Your task to perform on an android device: turn on airplane mode Image 0: 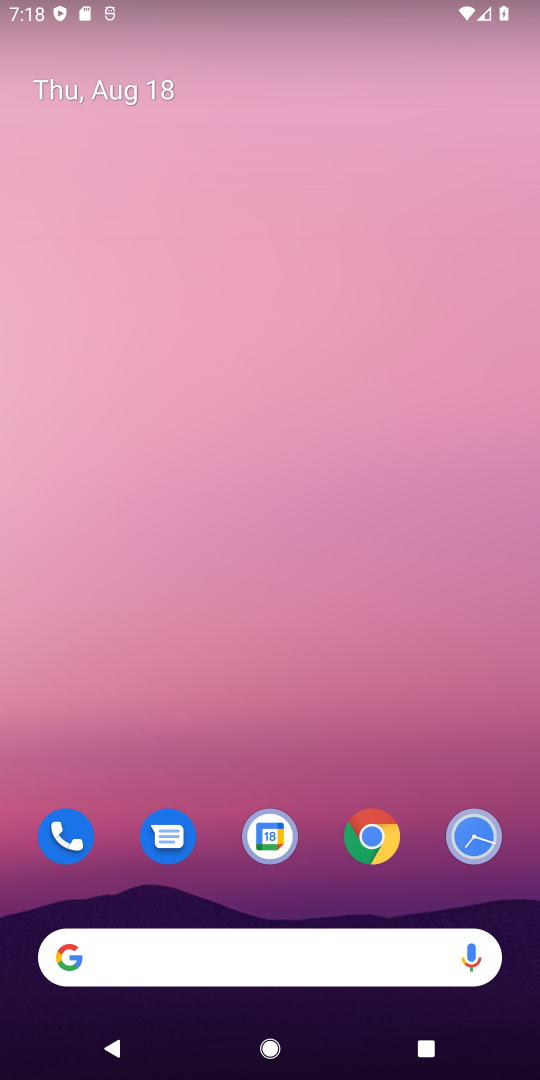
Step 0: drag from (370, 11) to (399, 777)
Your task to perform on an android device: turn on airplane mode Image 1: 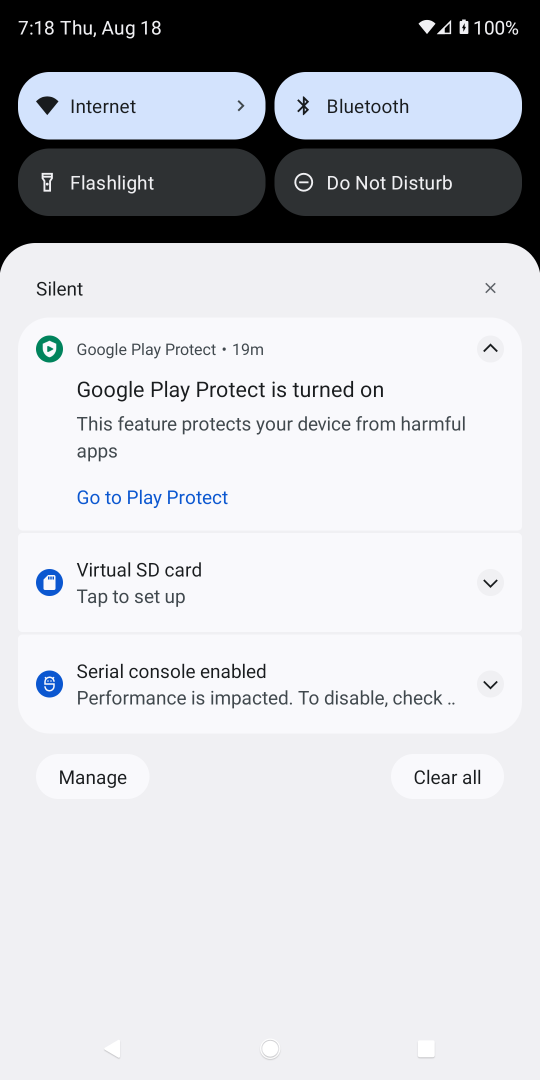
Step 1: drag from (271, 240) to (354, 678)
Your task to perform on an android device: turn on airplane mode Image 2: 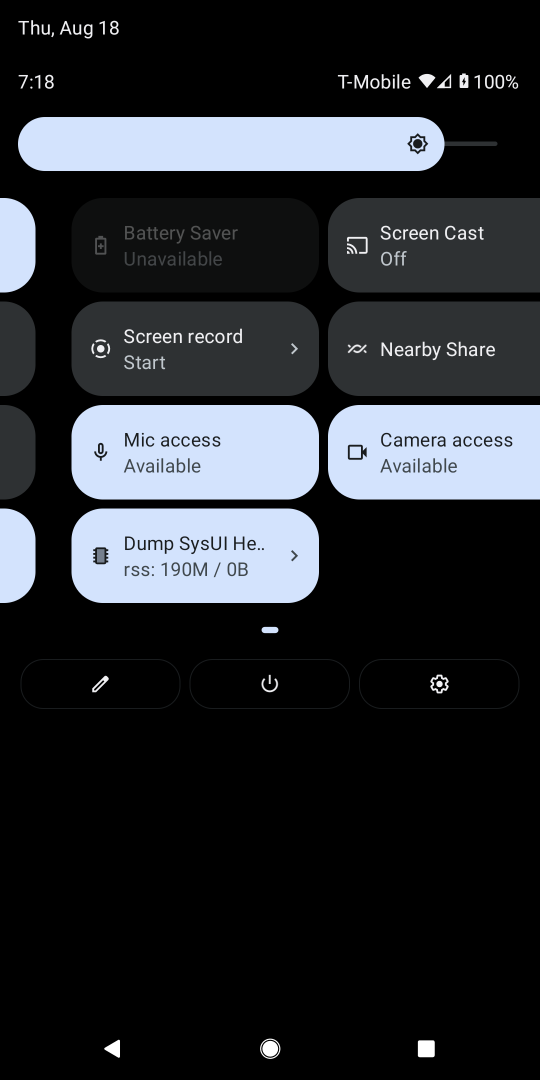
Step 2: click (419, 453)
Your task to perform on an android device: turn on airplane mode Image 3: 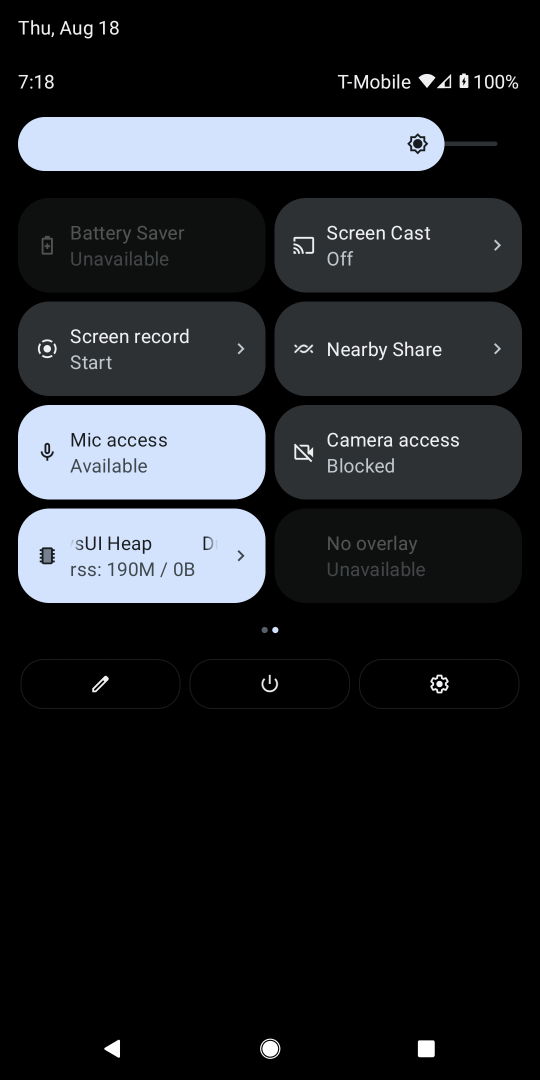
Step 3: drag from (53, 656) to (515, 548)
Your task to perform on an android device: turn on airplane mode Image 4: 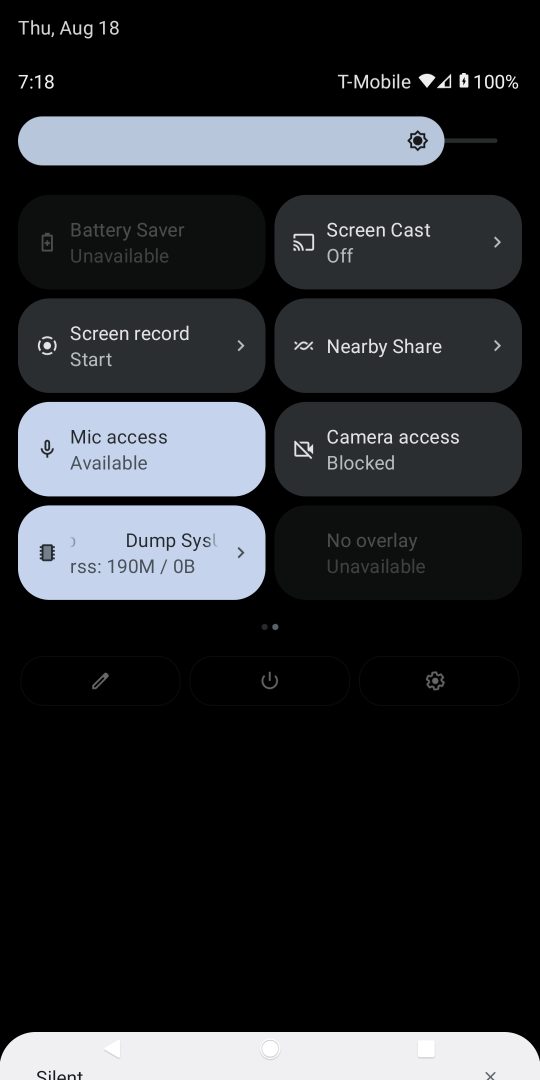
Step 4: drag from (82, 674) to (510, 535)
Your task to perform on an android device: turn on airplane mode Image 5: 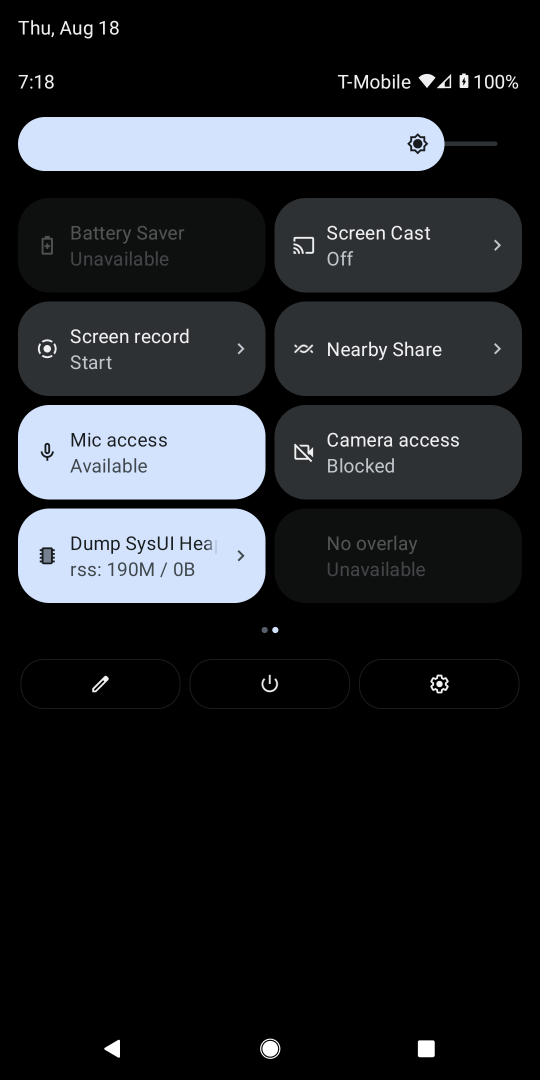
Step 5: drag from (326, 553) to (535, 510)
Your task to perform on an android device: turn on airplane mode Image 6: 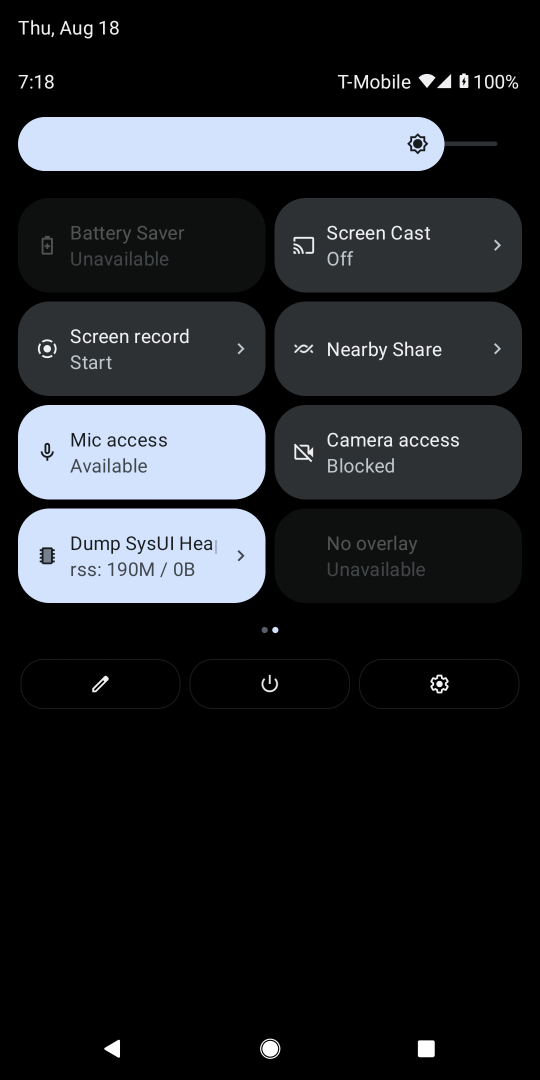
Step 6: drag from (329, 546) to (533, 507)
Your task to perform on an android device: turn on airplane mode Image 7: 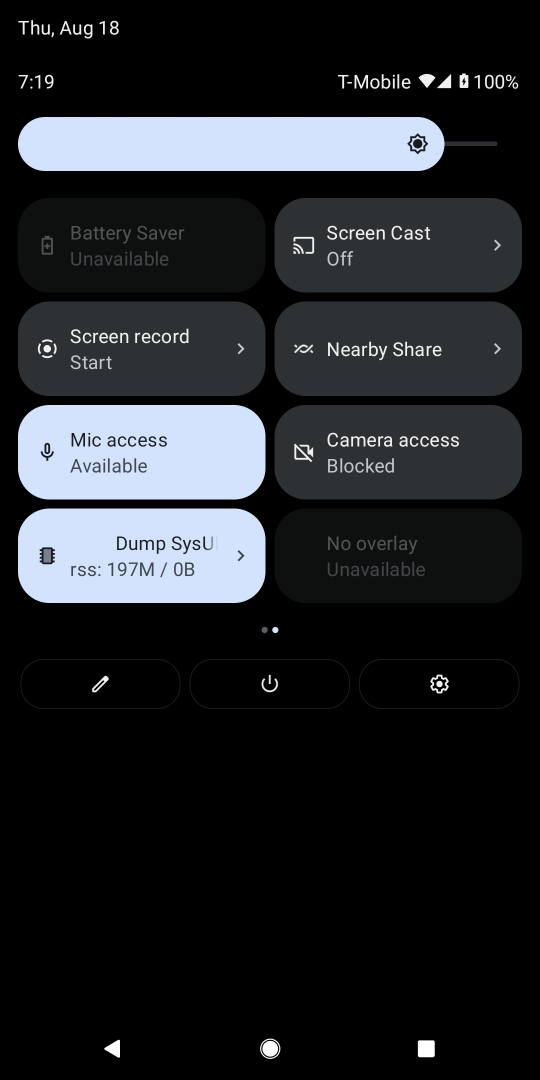
Step 7: drag from (11, 385) to (537, 376)
Your task to perform on an android device: turn on airplane mode Image 8: 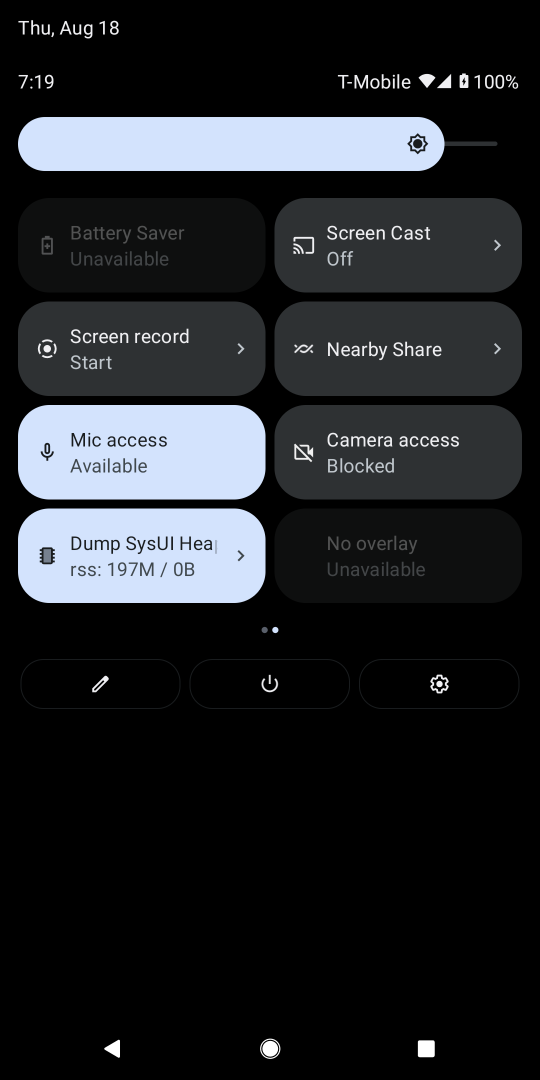
Step 8: drag from (19, 406) to (528, 454)
Your task to perform on an android device: turn on airplane mode Image 9: 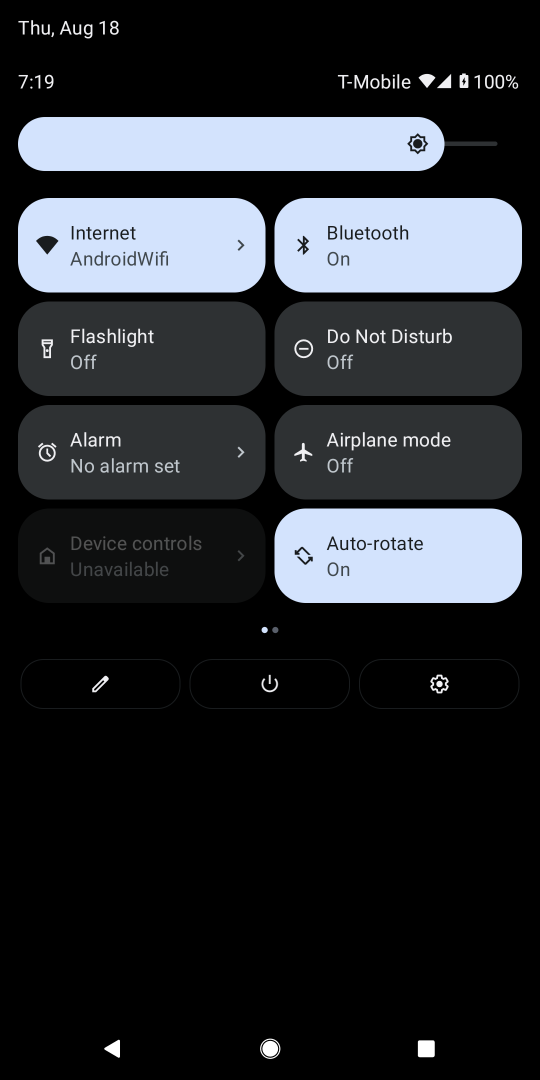
Step 9: click (405, 456)
Your task to perform on an android device: turn on airplane mode Image 10: 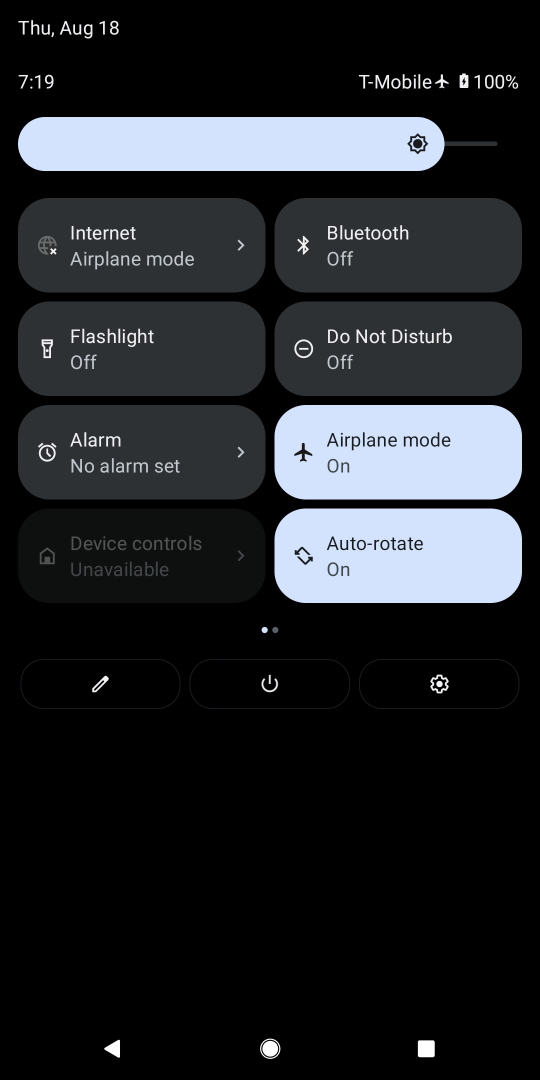
Step 10: task complete